Your task to perform on an android device: turn on airplane mode Image 0: 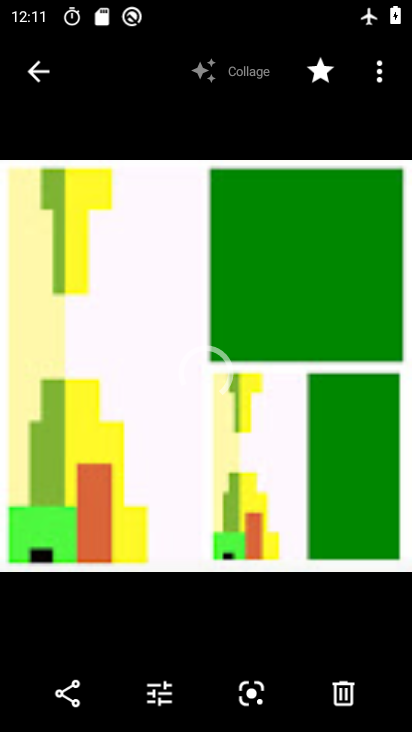
Step 0: press home button
Your task to perform on an android device: turn on airplane mode Image 1: 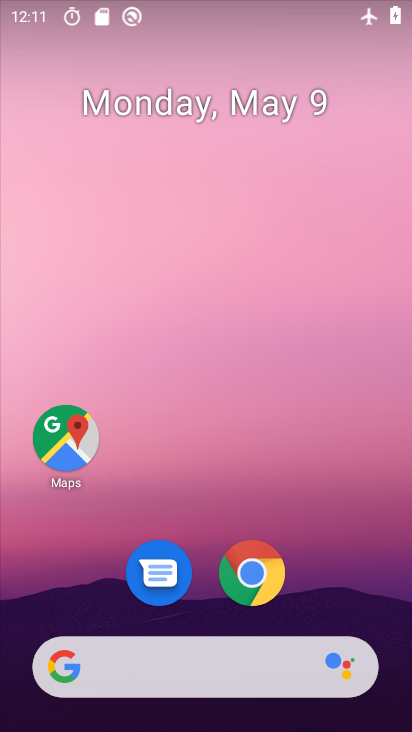
Step 1: drag from (269, 88) to (243, 370)
Your task to perform on an android device: turn on airplane mode Image 2: 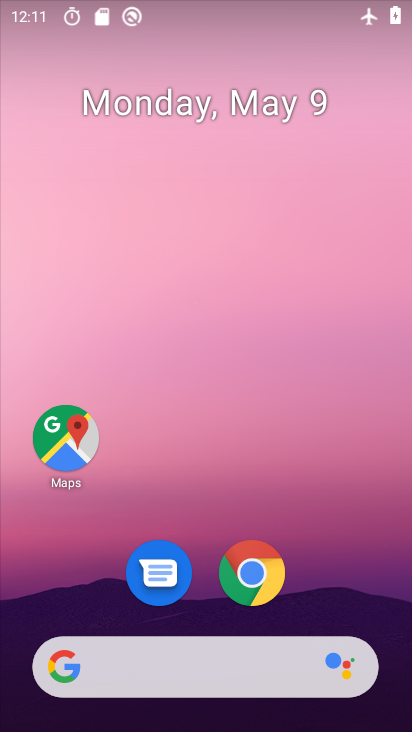
Step 2: drag from (197, 8) to (182, 433)
Your task to perform on an android device: turn on airplane mode Image 3: 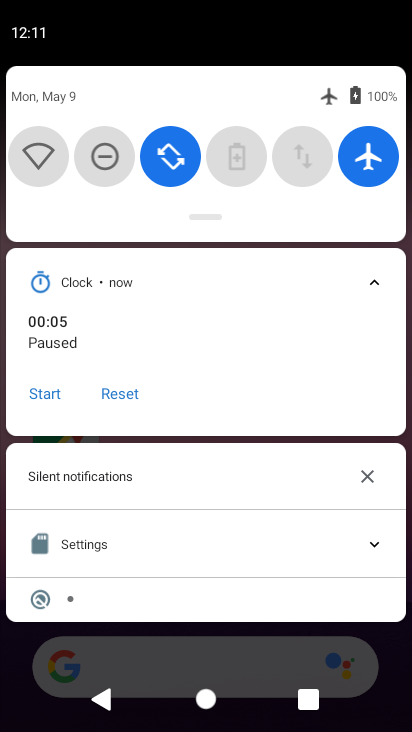
Step 3: click (108, 387)
Your task to perform on an android device: turn on airplane mode Image 4: 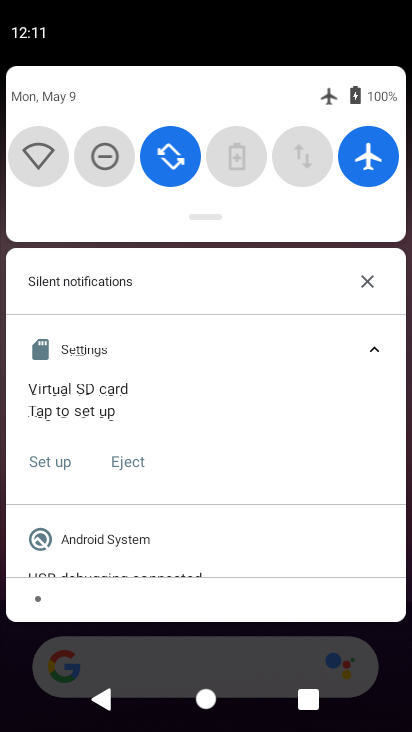
Step 4: task complete